Your task to perform on an android device: toggle wifi Image 0: 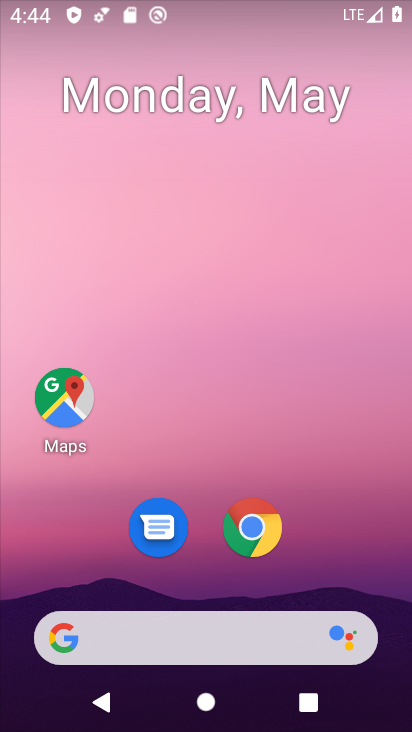
Step 0: drag from (393, 706) to (314, 65)
Your task to perform on an android device: toggle wifi Image 1: 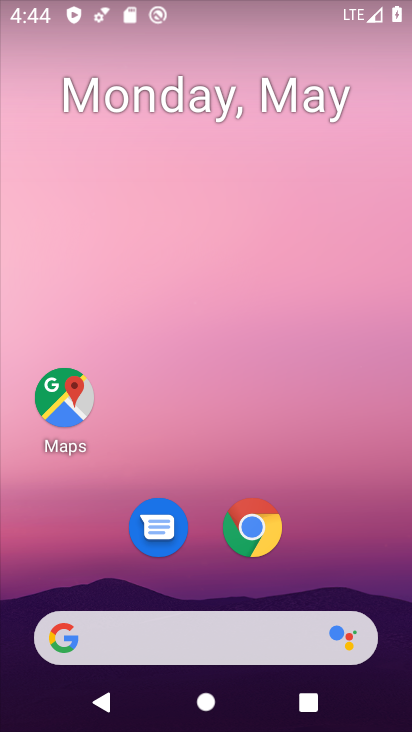
Step 1: drag from (394, 701) to (322, 171)
Your task to perform on an android device: toggle wifi Image 2: 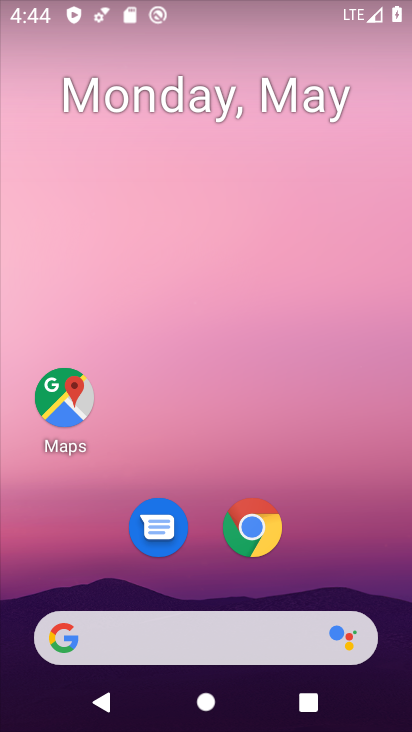
Step 2: drag from (390, 553) to (351, 118)
Your task to perform on an android device: toggle wifi Image 3: 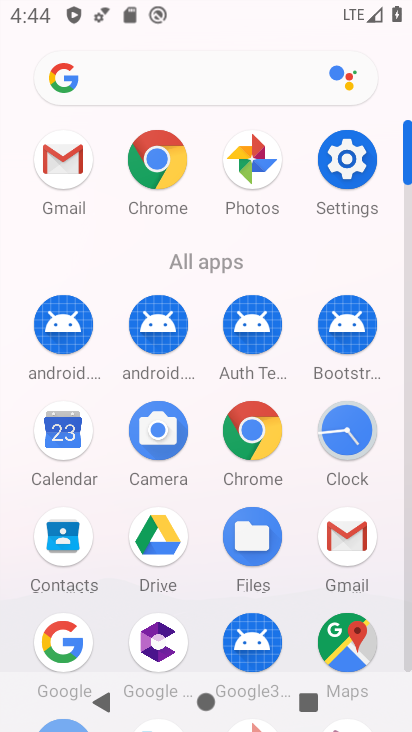
Step 3: click (353, 171)
Your task to perform on an android device: toggle wifi Image 4: 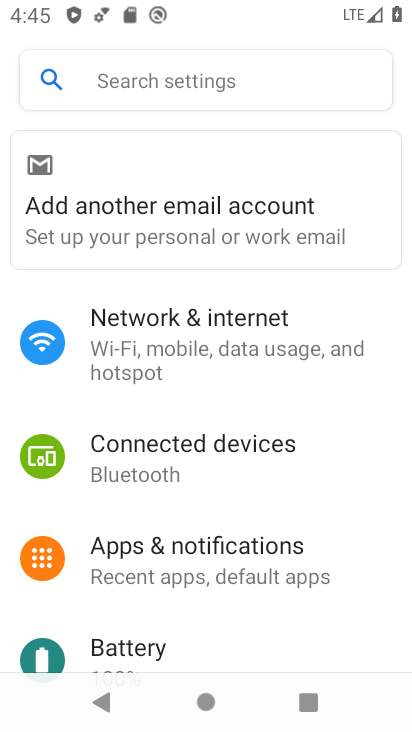
Step 4: click (199, 337)
Your task to perform on an android device: toggle wifi Image 5: 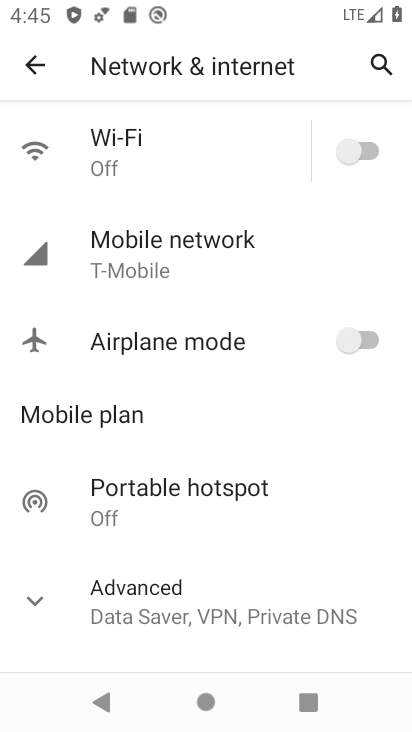
Step 5: click (371, 146)
Your task to perform on an android device: toggle wifi Image 6: 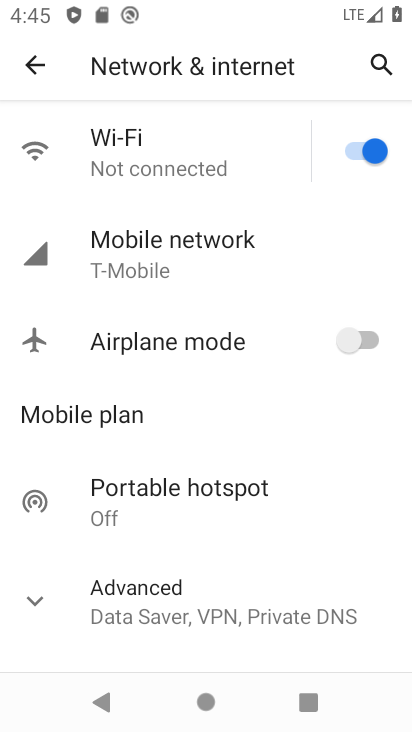
Step 6: task complete